Your task to perform on an android device: What's the weather? Image 0: 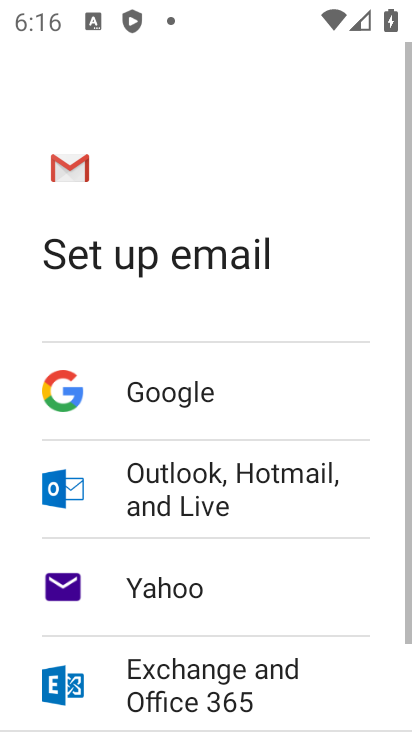
Step 0: press home button
Your task to perform on an android device: What's the weather? Image 1: 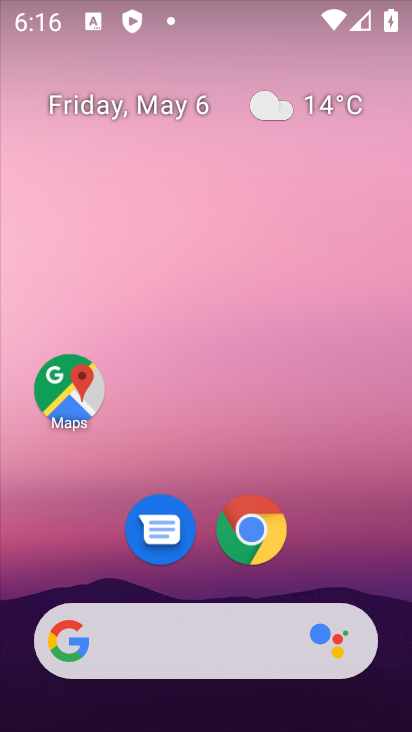
Step 1: click (273, 103)
Your task to perform on an android device: What's the weather? Image 2: 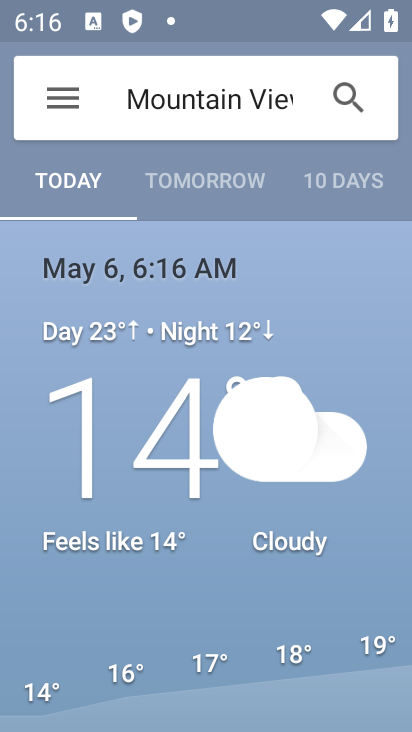
Step 2: task complete